Your task to perform on an android device: View the shopping cart on ebay. Add usb-c to usb-b to the cart on ebay Image 0: 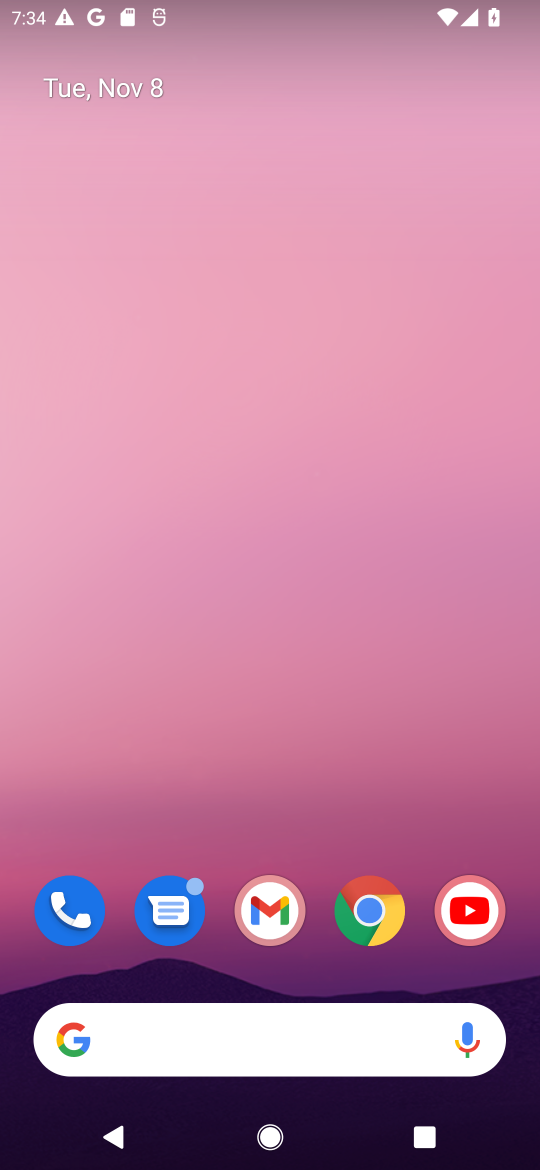
Step 0: click (363, 905)
Your task to perform on an android device: View the shopping cart on ebay. Add usb-c to usb-b to the cart on ebay Image 1: 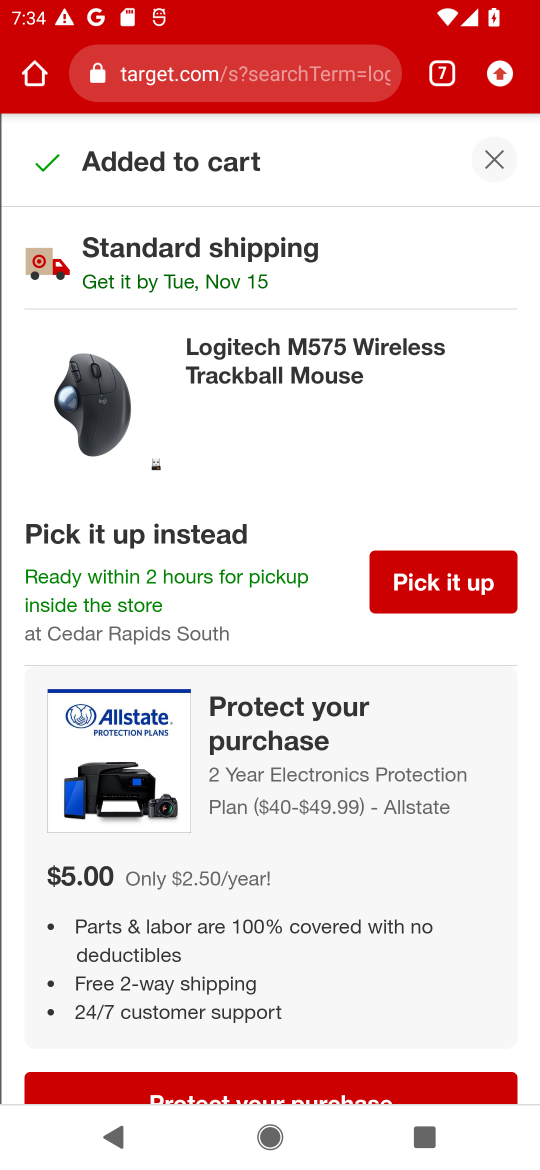
Step 1: click (440, 77)
Your task to perform on an android device: View the shopping cart on ebay. Add usb-c to usb-b to the cart on ebay Image 2: 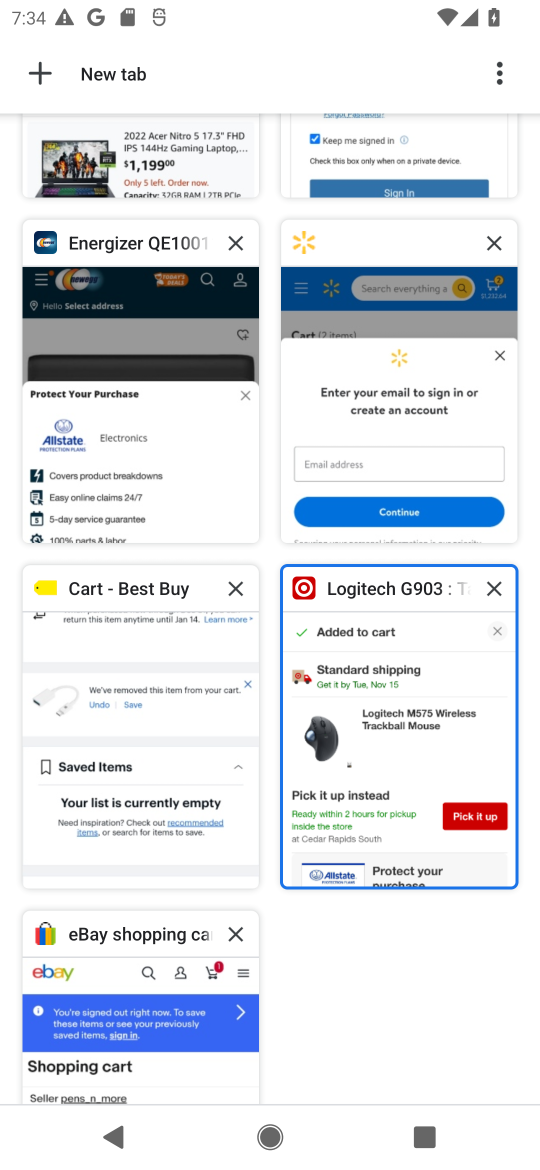
Step 2: click (99, 1054)
Your task to perform on an android device: View the shopping cart on ebay. Add usb-c to usb-b to the cart on ebay Image 3: 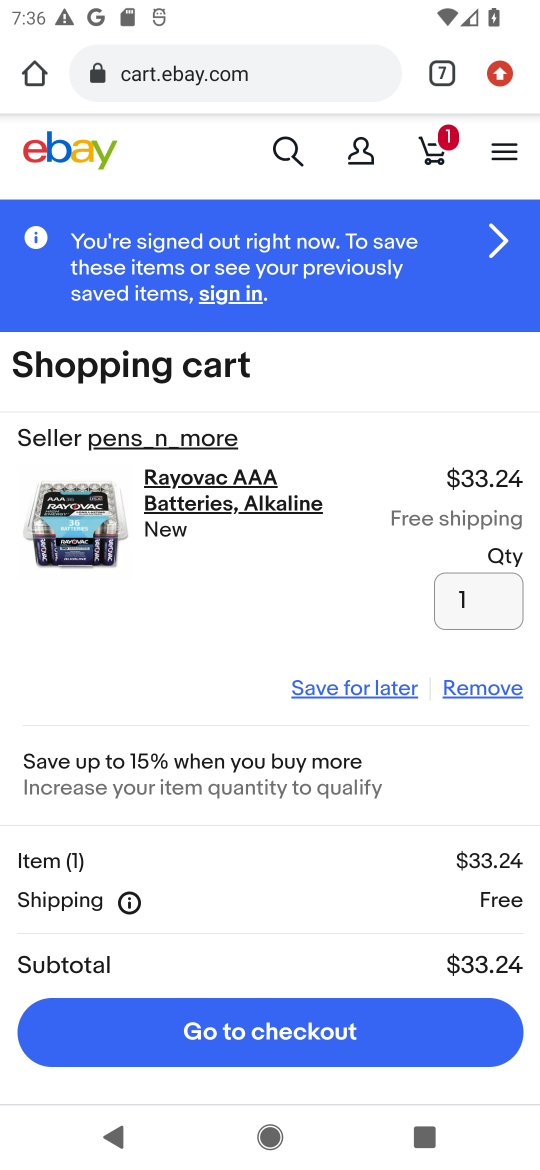
Step 3: click (284, 145)
Your task to perform on an android device: View the shopping cart on ebay. Add usb-c to usb-b to the cart on ebay Image 4: 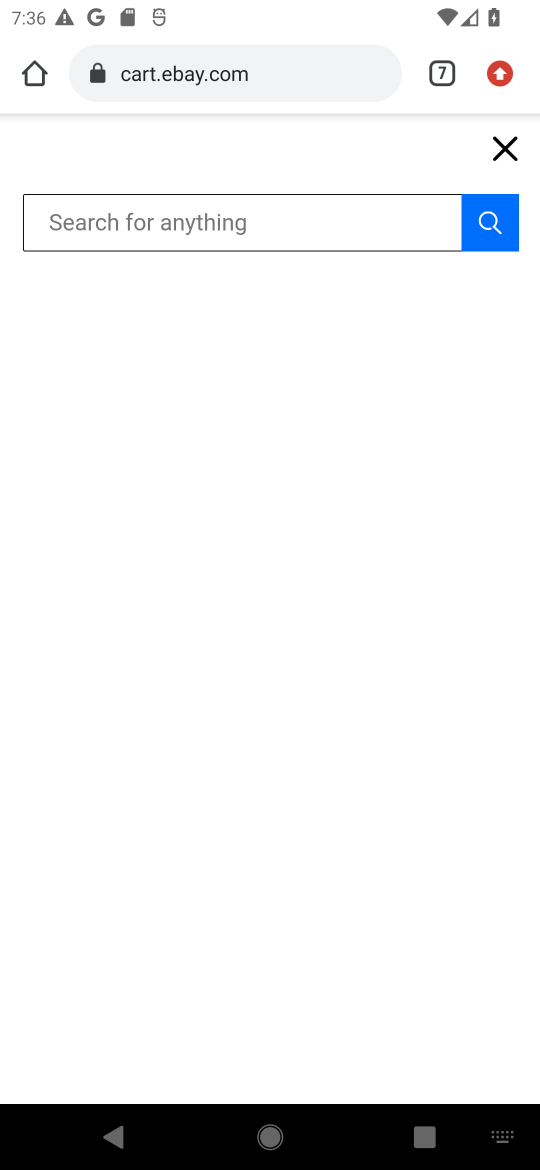
Step 4: type "usb-c to usb-b"
Your task to perform on an android device: View the shopping cart on ebay. Add usb-c to usb-b to the cart on ebay Image 5: 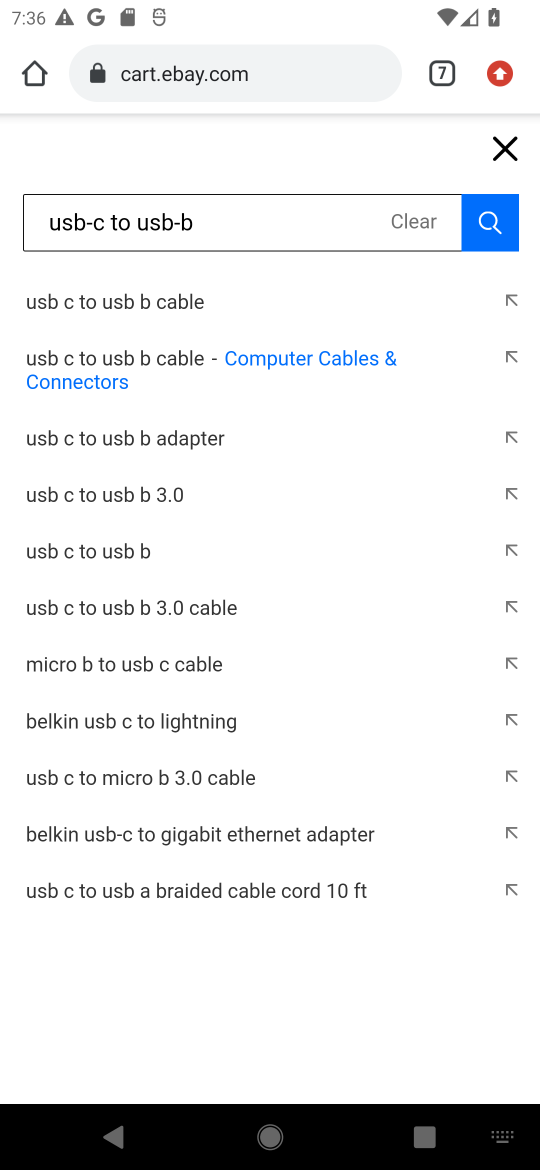
Step 5: click (169, 350)
Your task to perform on an android device: View the shopping cart on ebay. Add usb-c to usb-b to the cart on ebay Image 6: 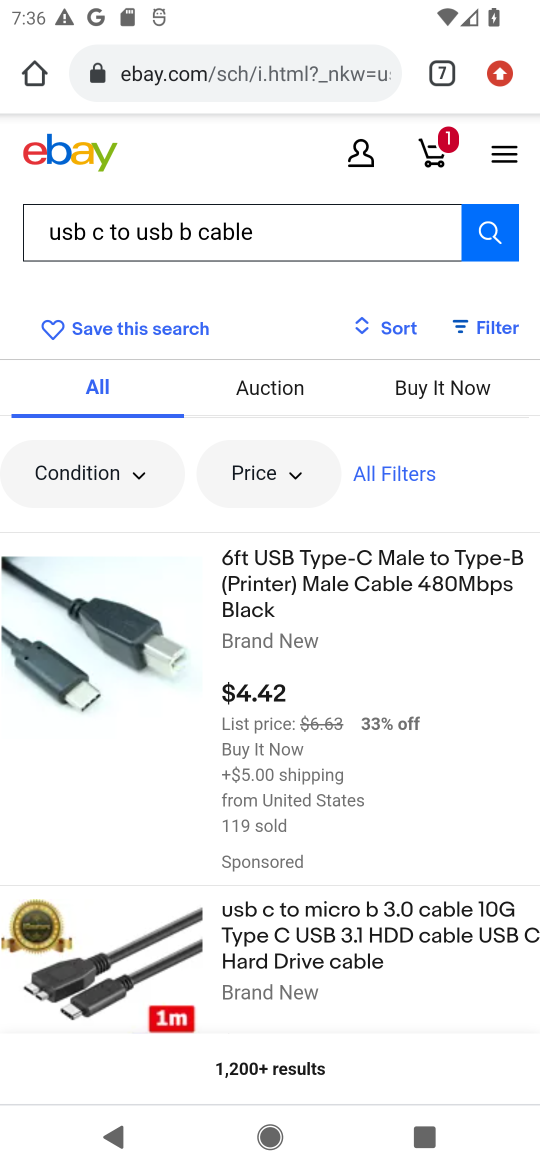
Step 6: click (294, 582)
Your task to perform on an android device: View the shopping cart on ebay. Add usb-c to usb-b to the cart on ebay Image 7: 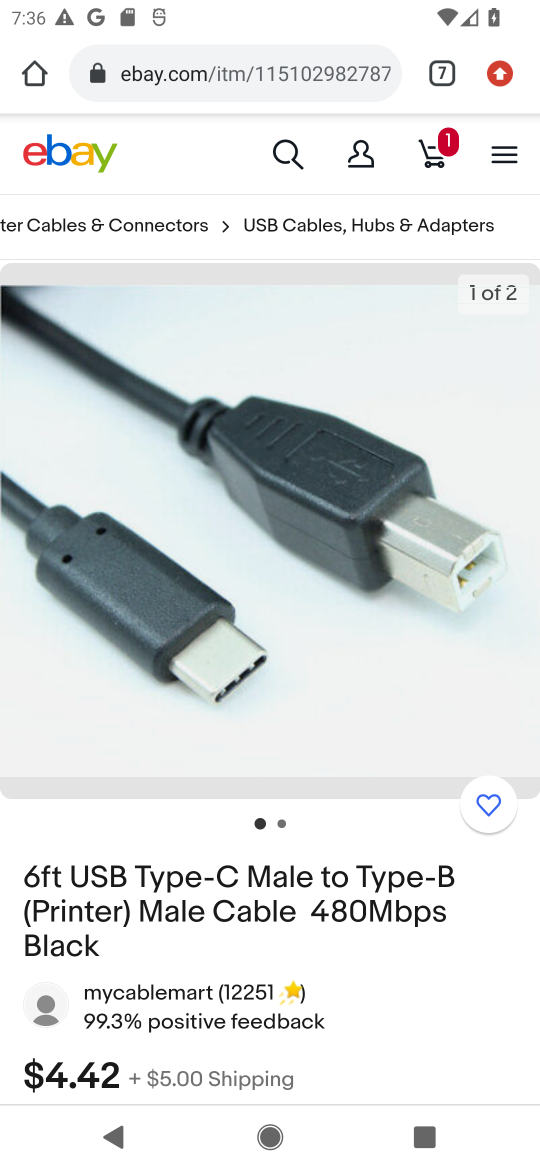
Step 7: drag from (366, 981) to (437, 399)
Your task to perform on an android device: View the shopping cart on ebay. Add usb-c to usb-b to the cart on ebay Image 8: 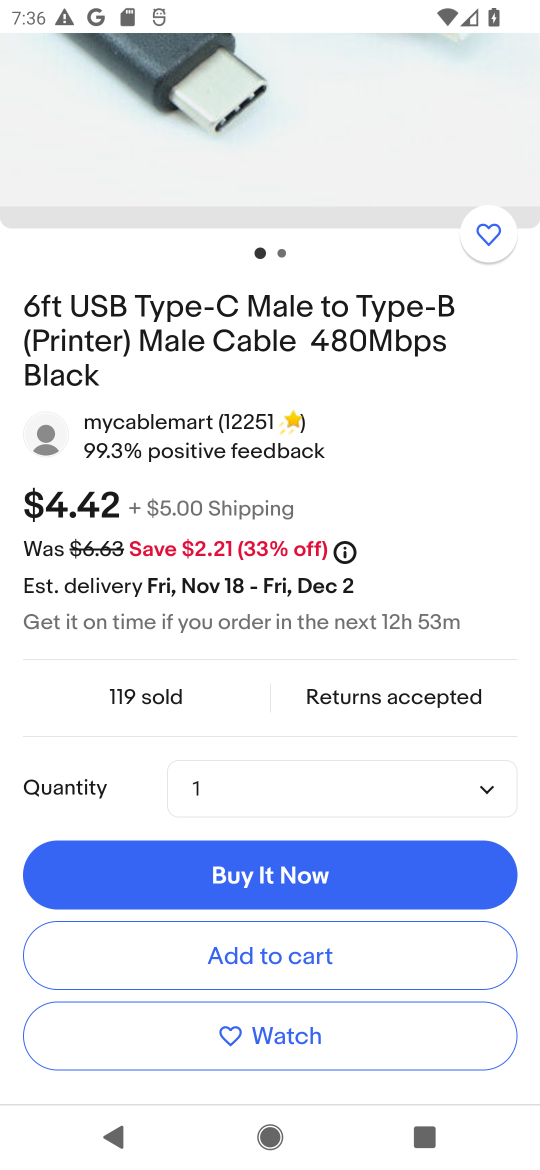
Step 8: click (258, 948)
Your task to perform on an android device: View the shopping cart on ebay. Add usb-c to usb-b to the cart on ebay Image 9: 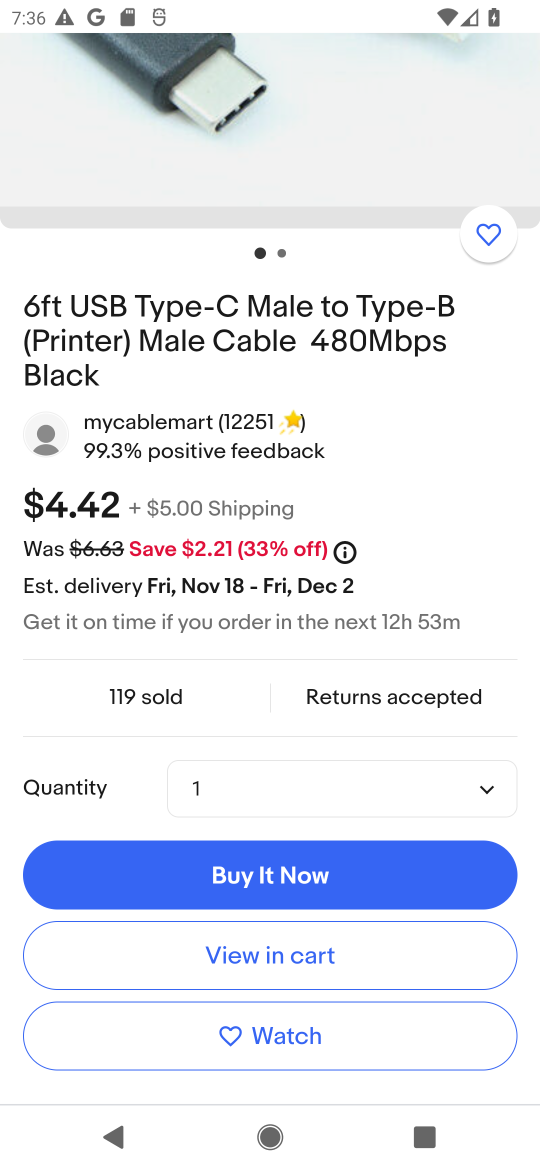
Step 9: task complete